Your task to perform on an android device: turn on sleep mode Image 0: 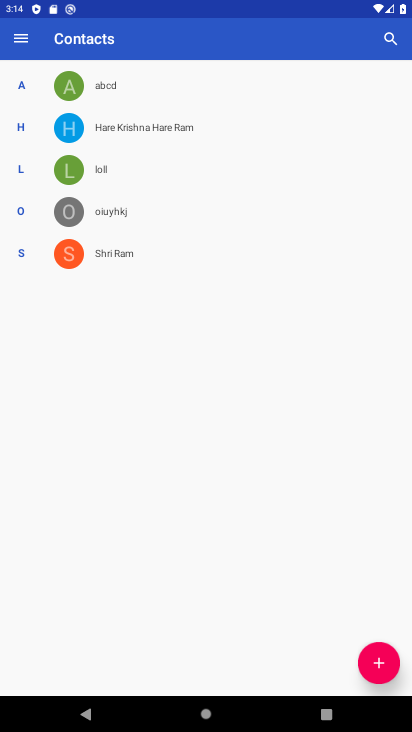
Step 0: press home button
Your task to perform on an android device: turn on sleep mode Image 1: 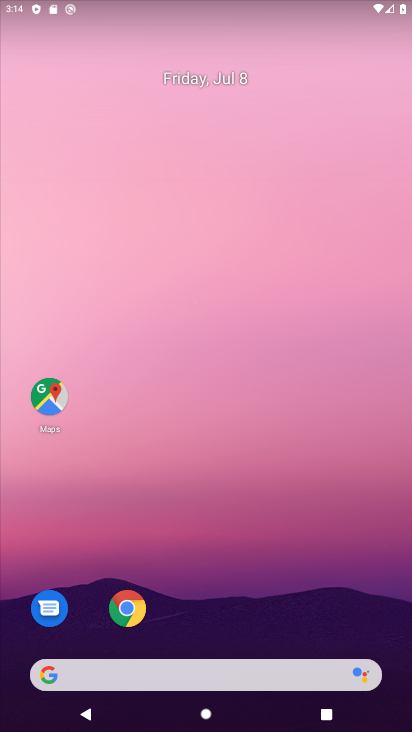
Step 1: drag from (227, 547) to (238, 119)
Your task to perform on an android device: turn on sleep mode Image 2: 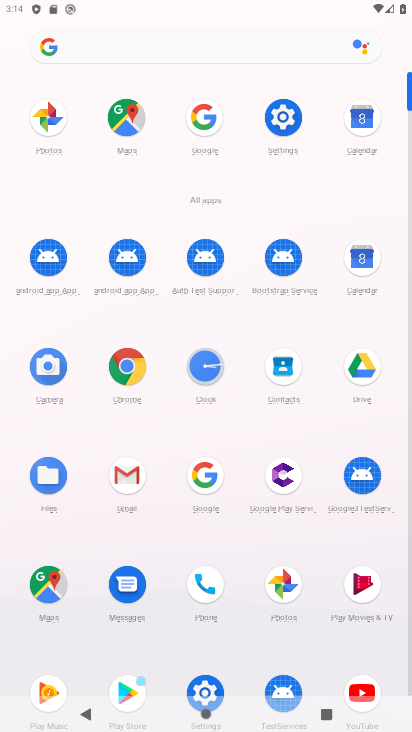
Step 2: click (292, 111)
Your task to perform on an android device: turn on sleep mode Image 3: 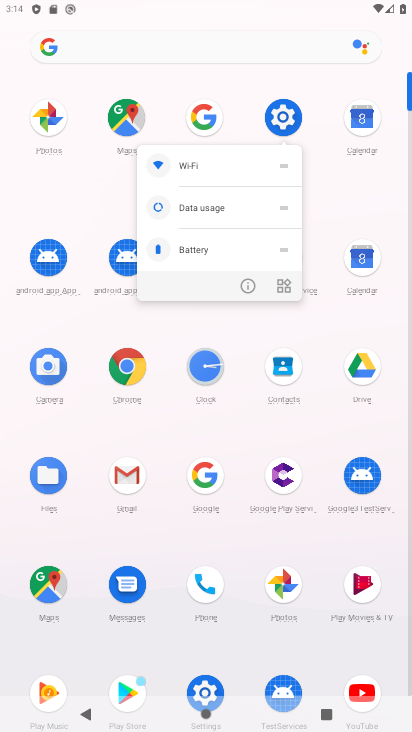
Step 3: click (287, 115)
Your task to perform on an android device: turn on sleep mode Image 4: 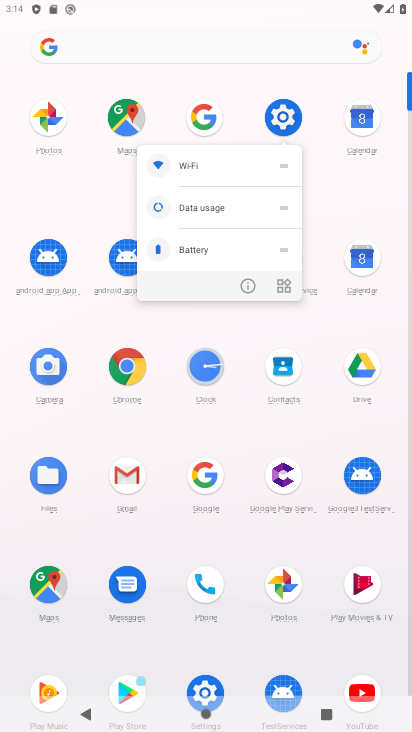
Step 4: click (276, 113)
Your task to perform on an android device: turn on sleep mode Image 5: 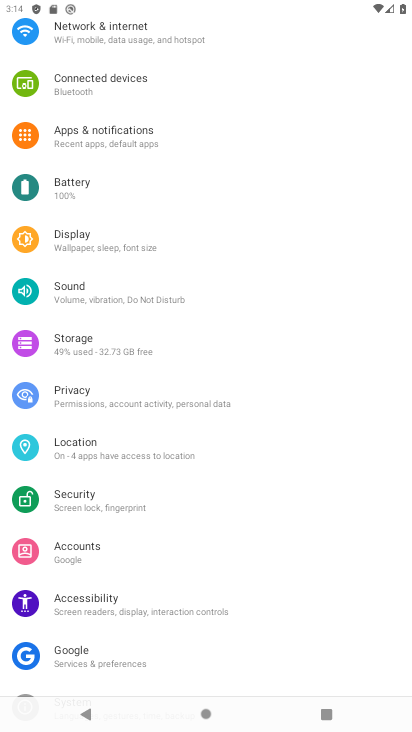
Step 5: click (80, 243)
Your task to perform on an android device: turn on sleep mode Image 6: 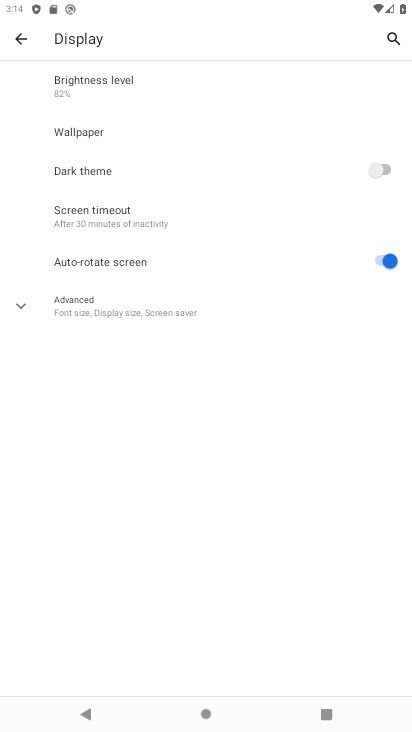
Step 6: task complete